Your task to perform on an android device: Search for Mexican restaurants on Maps Image 0: 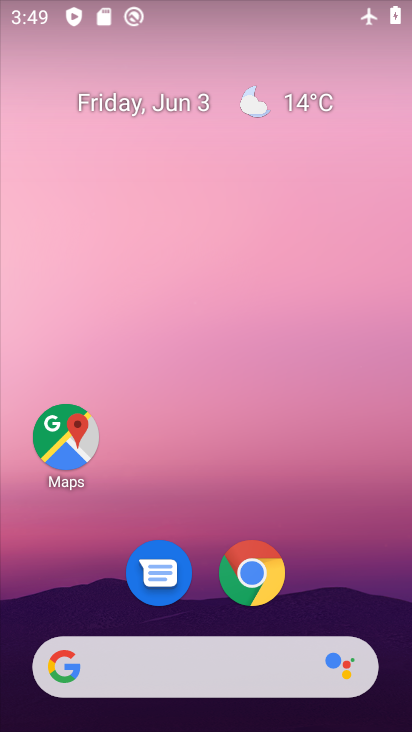
Step 0: drag from (224, 506) to (230, 268)
Your task to perform on an android device: Search for Mexican restaurants on Maps Image 1: 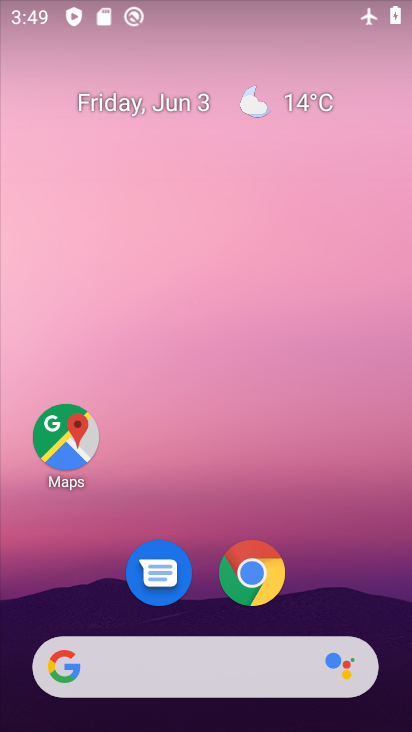
Step 1: drag from (245, 633) to (268, 265)
Your task to perform on an android device: Search for Mexican restaurants on Maps Image 2: 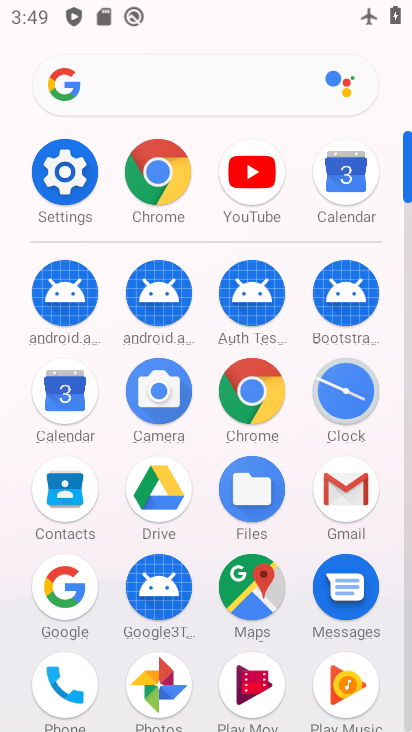
Step 2: click (255, 587)
Your task to perform on an android device: Search for Mexican restaurants on Maps Image 3: 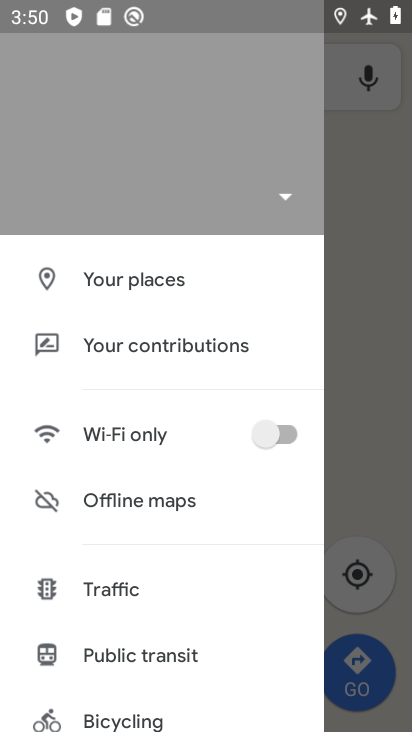
Step 3: task complete